Your task to perform on an android device: Show me recent news Image 0: 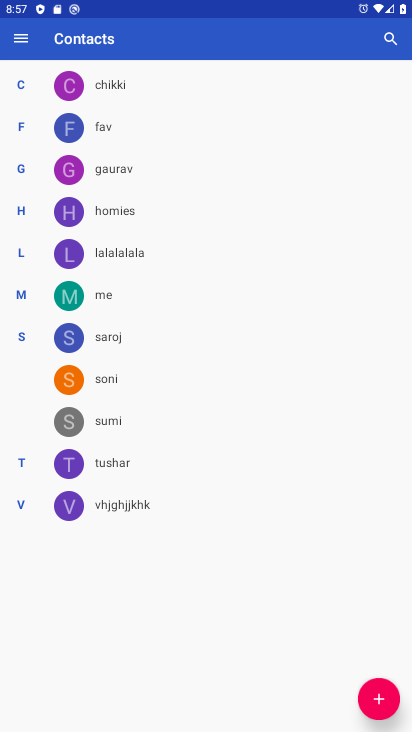
Step 0: press home button
Your task to perform on an android device: Show me recent news Image 1: 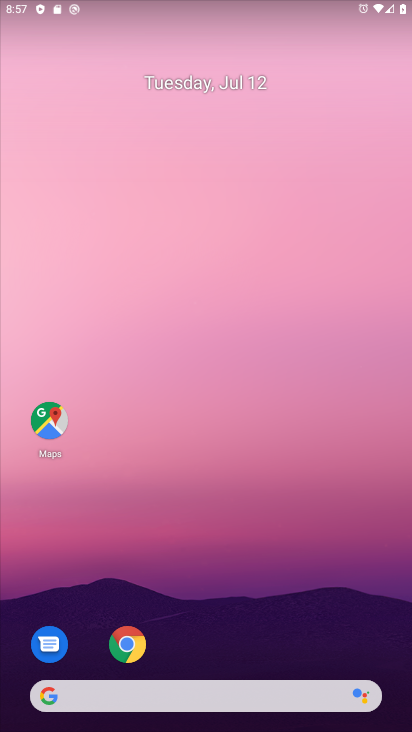
Step 1: click (111, 684)
Your task to perform on an android device: Show me recent news Image 2: 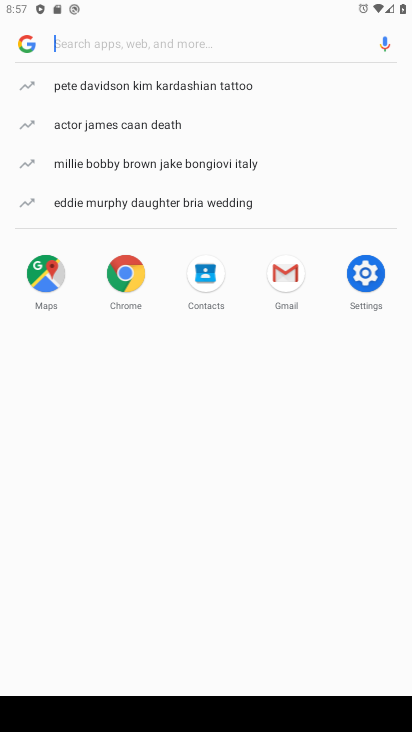
Step 2: type "Show me recent news"
Your task to perform on an android device: Show me recent news Image 3: 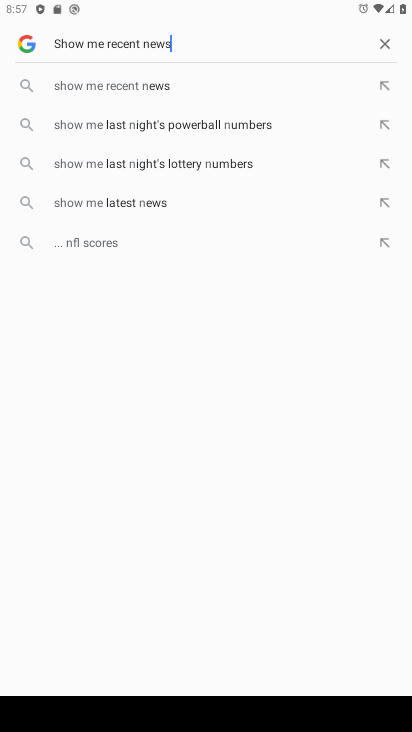
Step 3: type ""
Your task to perform on an android device: Show me recent news Image 4: 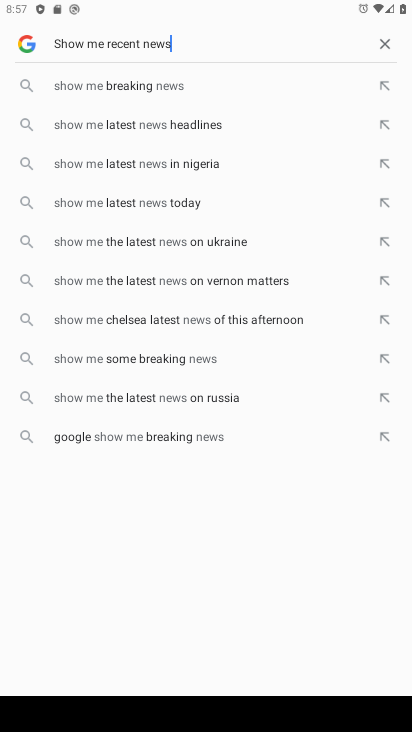
Step 4: click (115, 78)
Your task to perform on an android device: Show me recent news Image 5: 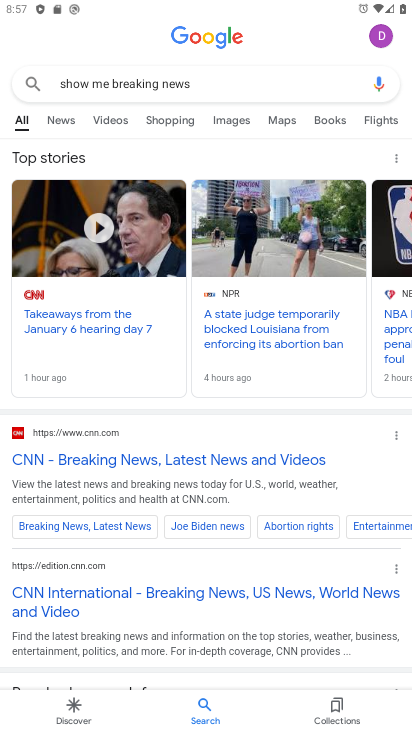
Step 5: task complete